Your task to perform on an android device: find which apps use the phone's location Image 0: 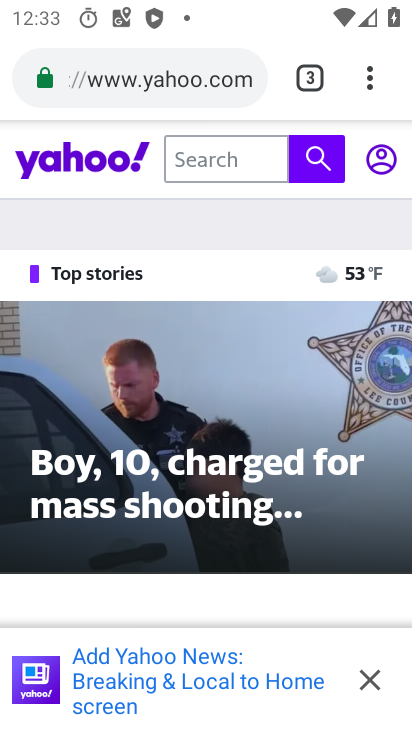
Step 0: press home button
Your task to perform on an android device: find which apps use the phone's location Image 1: 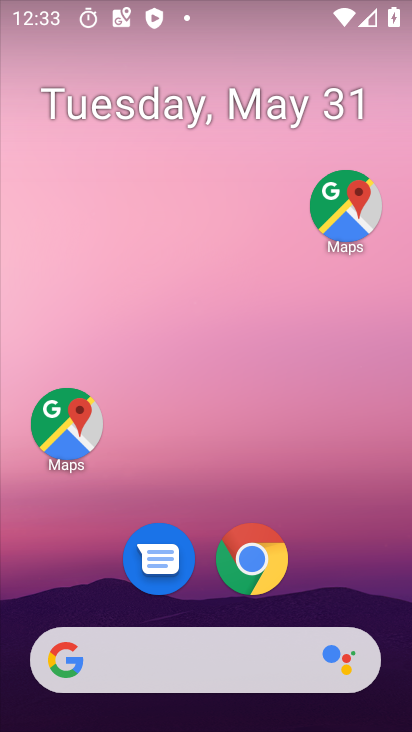
Step 1: drag from (349, 490) to (117, 0)
Your task to perform on an android device: find which apps use the phone's location Image 2: 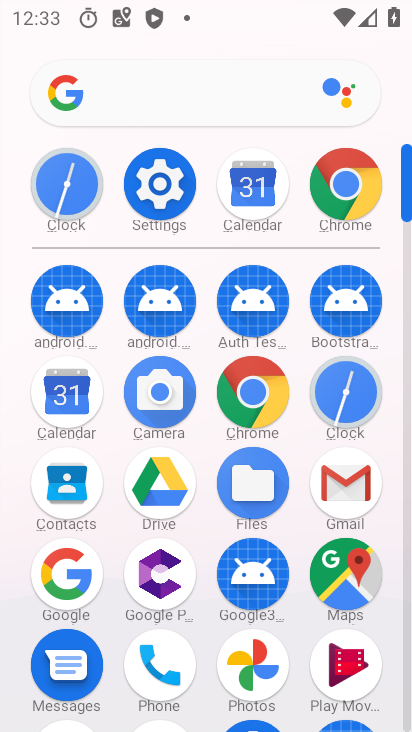
Step 2: click (164, 265)
Your task to perform on an android device: find which apps use the phone's location Image 3: 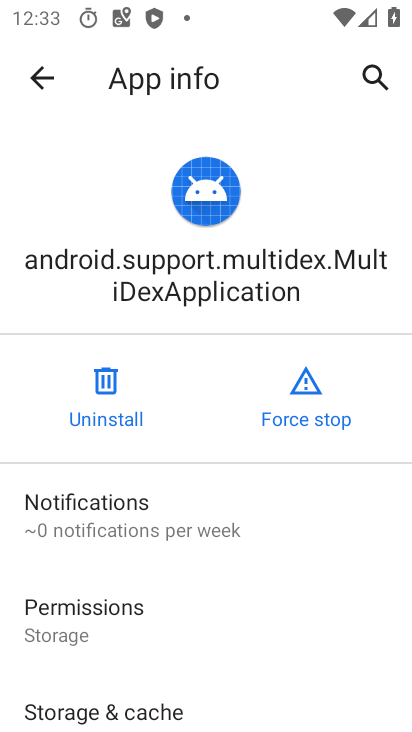
Step 3: click (40, 75)
Your task to perform on an android device: find which apps use the phone's location Image 4: 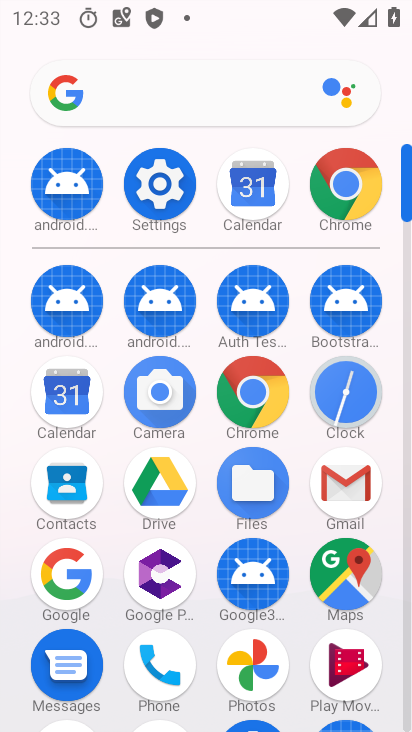
Step 4: click (149, 190)
Your task to perform on an android device: find which apps use the phone's location Image 5: 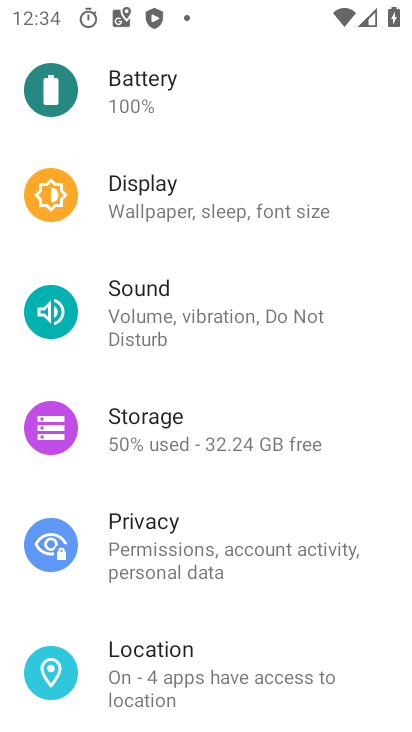
Step 5: click (187, 671)
Your task to perform on an android device: find which apps use the phone's location Image 6: 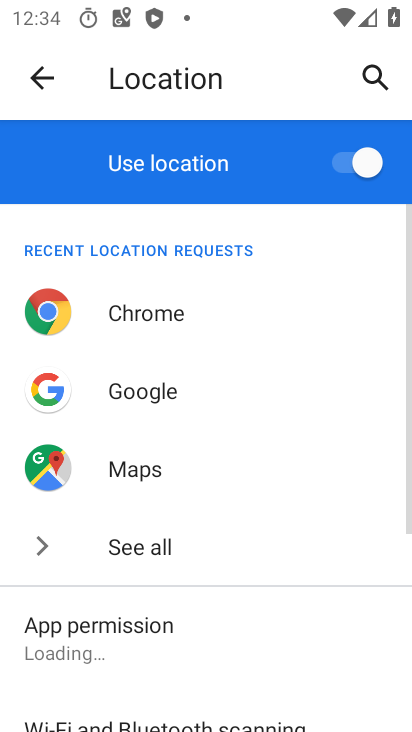
Step 6: drag from (303, 614) to (234, 103)
Your task to perform on an android device: find which apps use the phone's location Image 7: 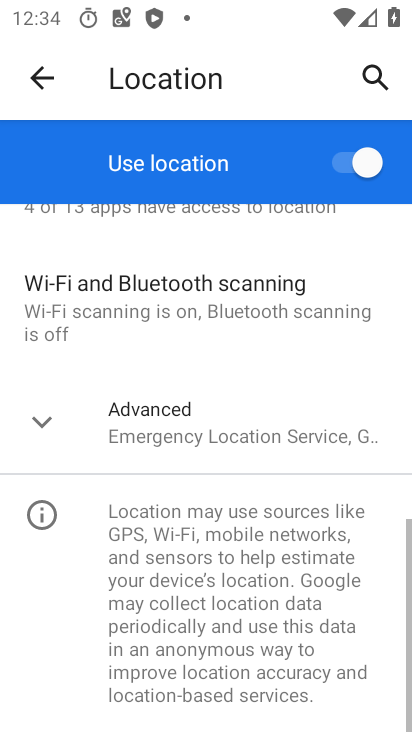
Step 7: click (193, 438)
Your task to perform on an android device: find which apps use the phone's location Image 8: 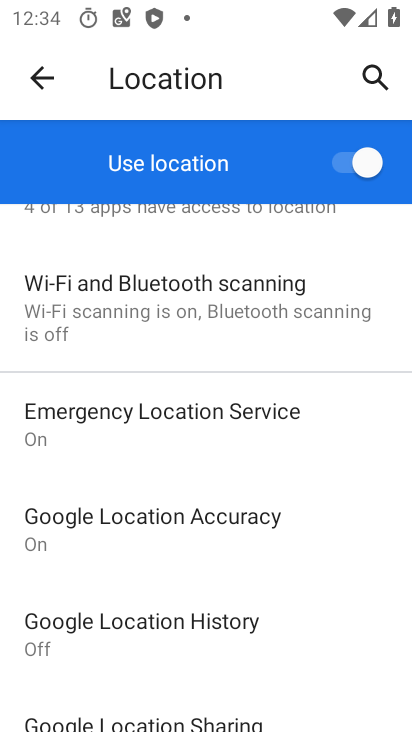
Step 8: drag from (252, 661) to (249, 729)
Your task to perform on an android device: find which apps use the phone's location Image 9: 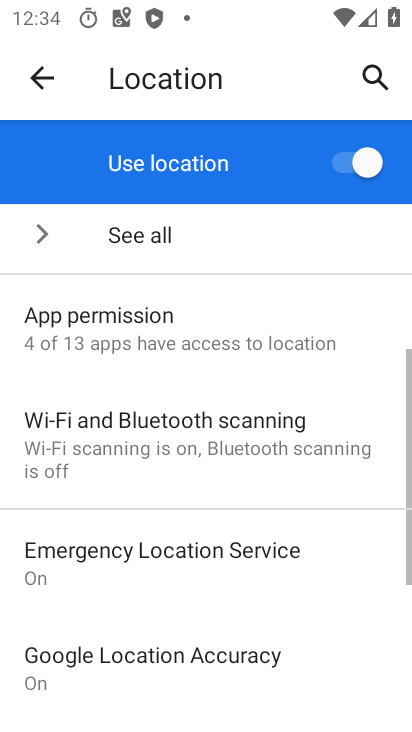
Step 9: click (201, 324)
Your task to perform on an android device: find which apps use the phone's location Image 10: 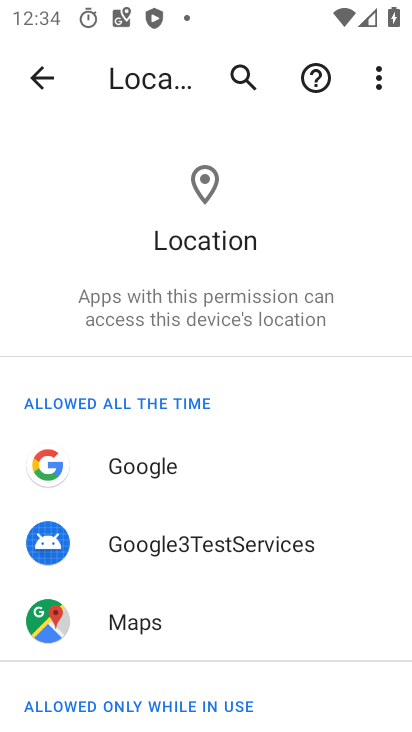
Step 10: drag from (260, 322) to (268, 216)
Your task to perform on an android device: find which apps use the phone's location Image 11: 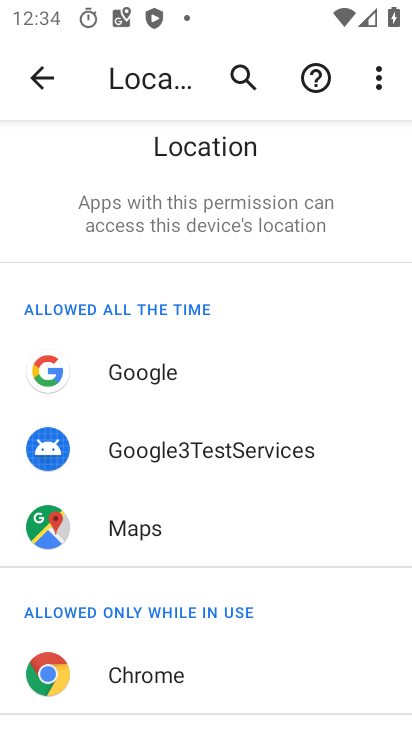
Step 11: click (269, 563)
Your task to perform on an android device: find which apps use the phone's location Image 12: 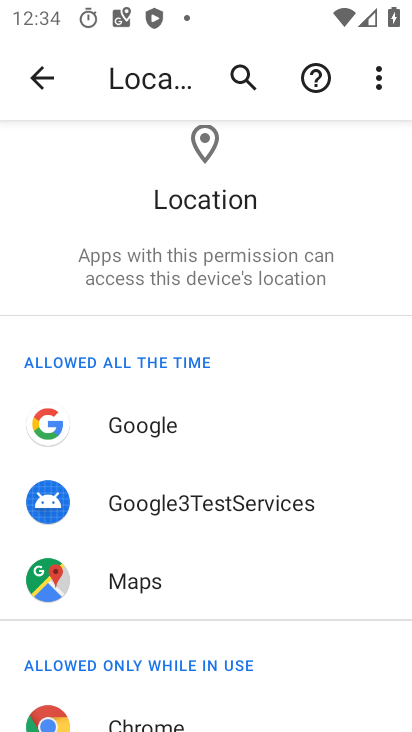
Step 12: task complete